Your task to perform on an android device: Open the calendar and show me this week's events? Image 0: 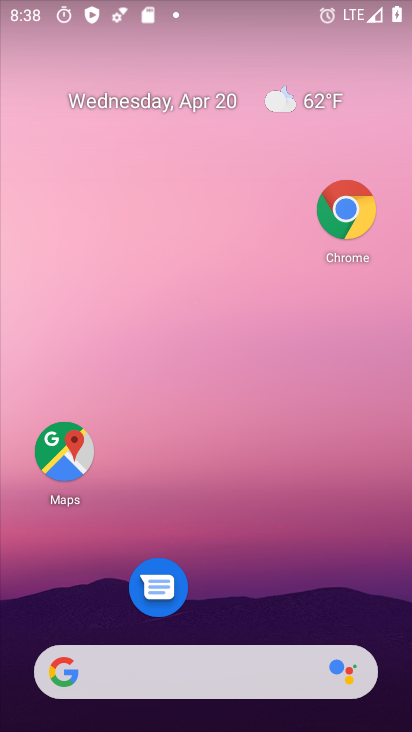
Step 0: click (230, 99)
Your task to perform on an android device: Open the calendar and show me this week's events? Image 1: 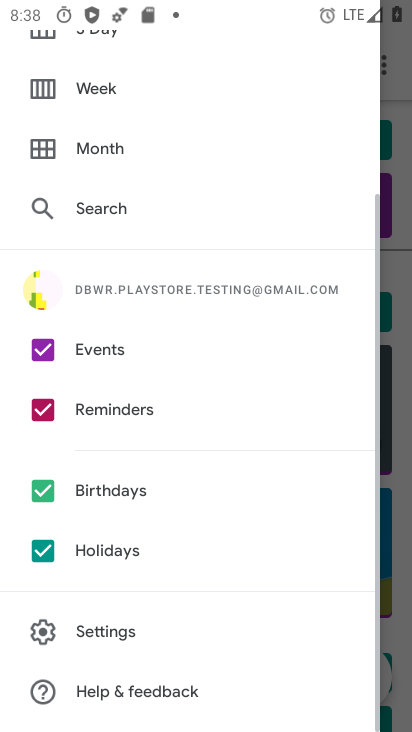
Step 1: click (397, 80)
Your task to perform on an android device: Open the calendar and show me this week's events? Image 2: 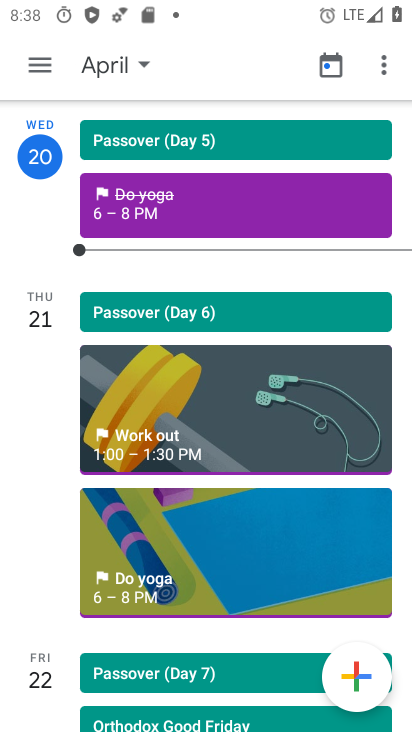
Step 2: click (131, 63)
Your task to perform on an android device: Open the calendar and show me this week's events? Image 3: 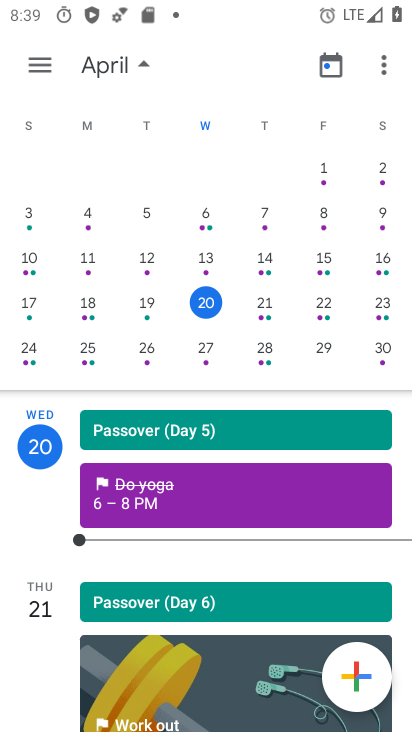
Step 3: task complete